Your task to perform on an android device: Go to notification settings Image 0: 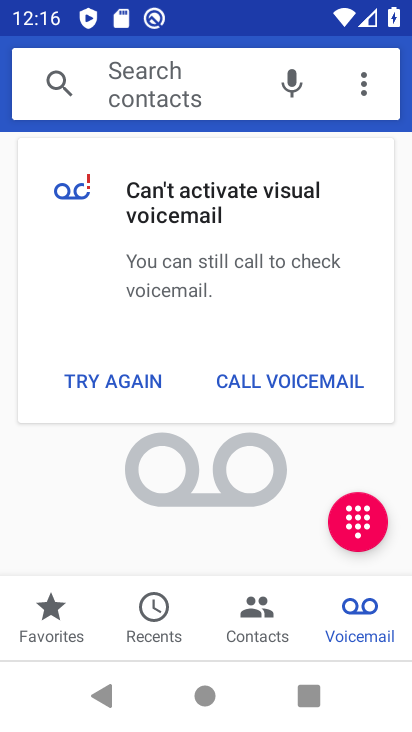
Step 0: press home button
Your task to perform on an android device: Go to notification settings Image 1: 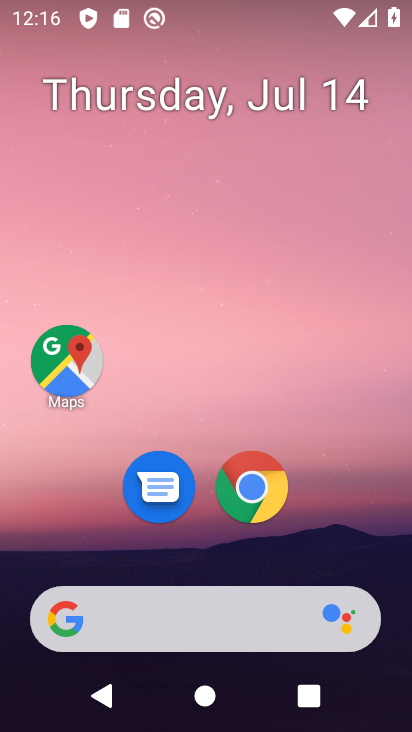
Step 1: drag from (235, 595) to (152, 78)
Your task to perform on an android device: Go to notification settings Image 2: 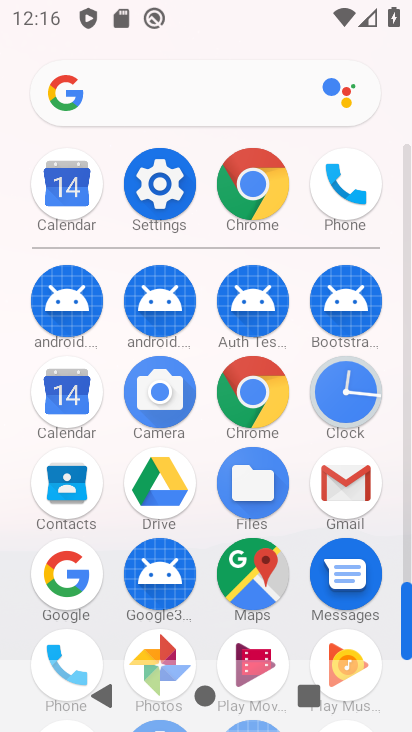
Step 2: click (145, 179)
Your task to perform on an android device: Go to notification settings Image 3: 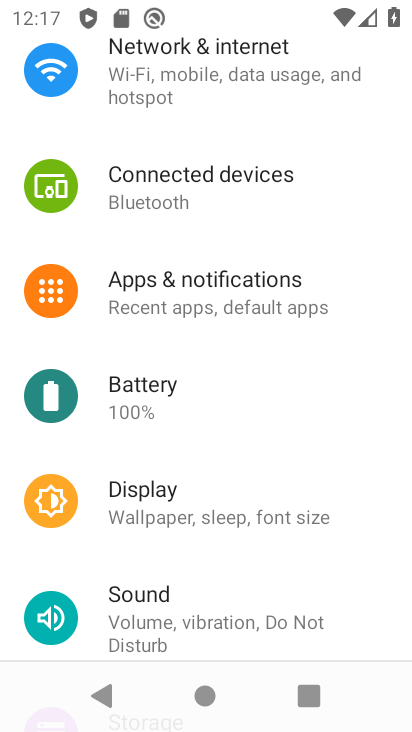
Step 3: click (174, 307)
Your task to perform on an android device: Go to notification settings Image 4: 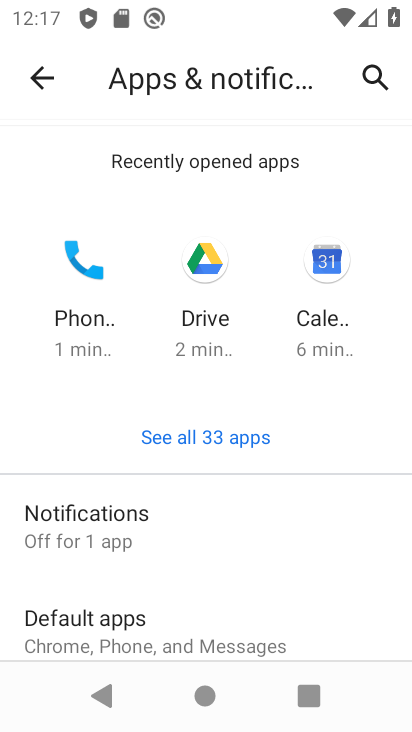
Step 4: click (181, 535)
Your task to perform on an android device: Go to notification settings Image 5: 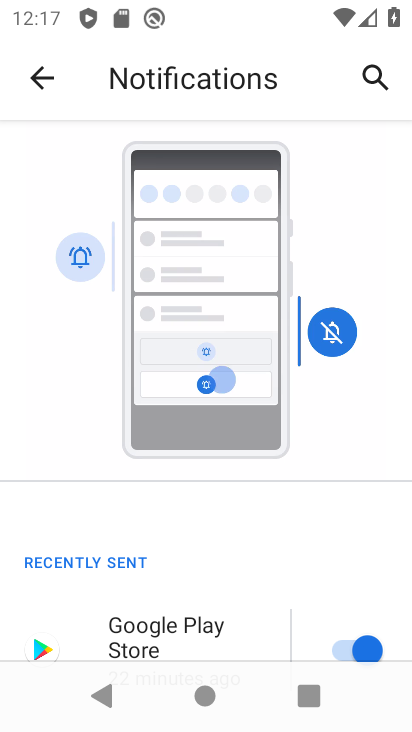
Step 5: task complete